Your task to perform on an android device: choose inbox layout in the gmail app Image 0: 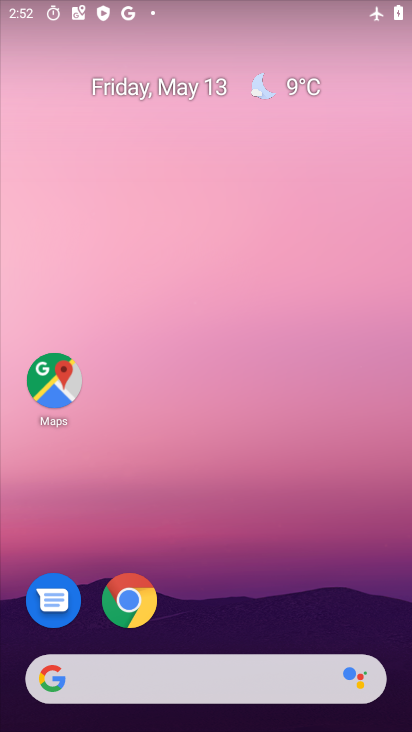
Step 0: drag from (194, 625) to (314, 212)
Your task to perform on an android device: choose inbox layout in the gmail app Image 1: 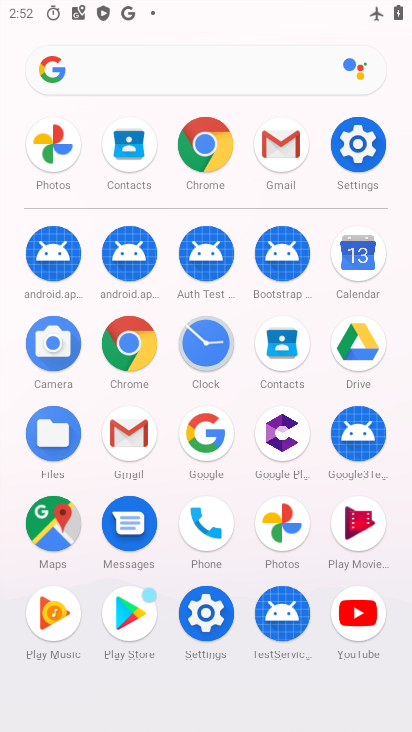
Step 1: click (124, 435)
Your task to perform on an android device: choose inbox layout in the gmail app Image 2: 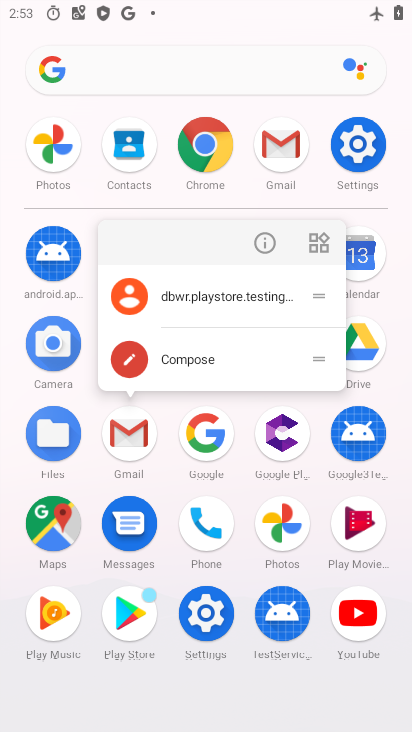
Step 2: click (189, 291)
Your task to perform on an android device: choose inbox layout in the gmail app Image 3: 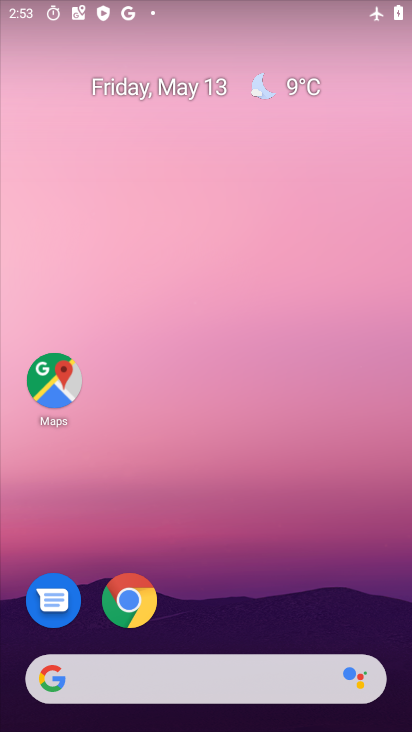
Step 3: drag from (199, 619) to (307, 248)
Your task to perform on an android device: choose inbox layout in the gmail app Image 4: 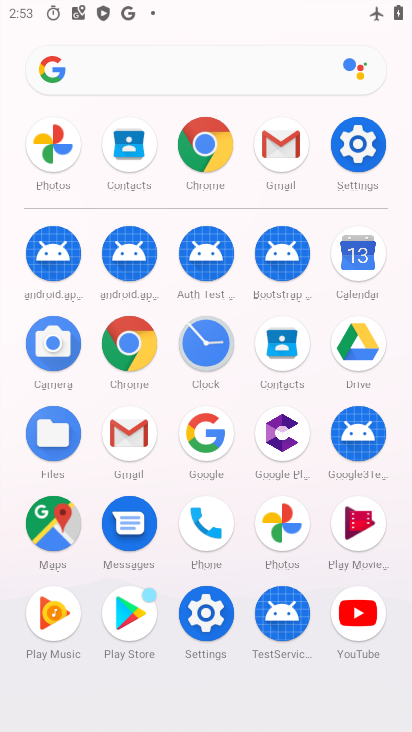
Step 4: click (131, 424)
Your task to perform on an android device: choose inbox layout in the gmail app Image 5: 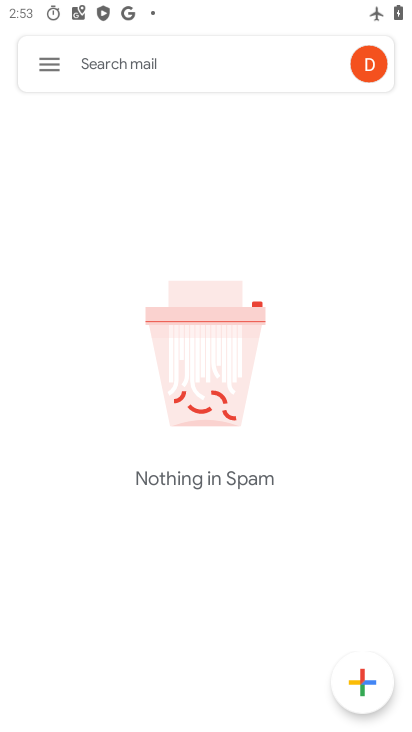
Step 5: click (58, 73)
Your task to perform on an android device: choose inbox layout in the gmail app Image 6: 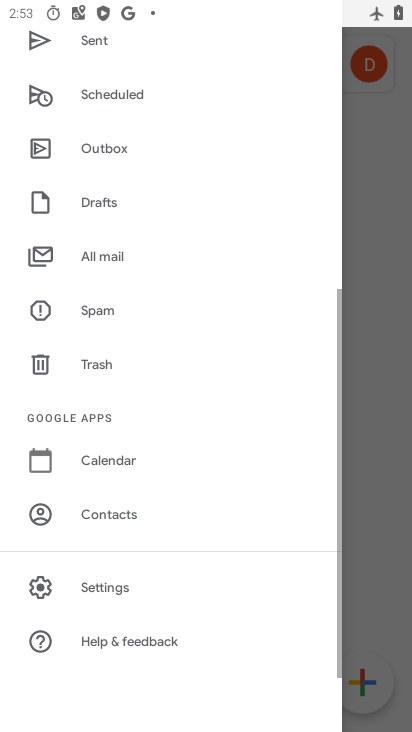
Step 6: drag from (128, 115) to (169, 726)
Your task to perform on an android device: choose inbox layout in the gmail app Image 7: 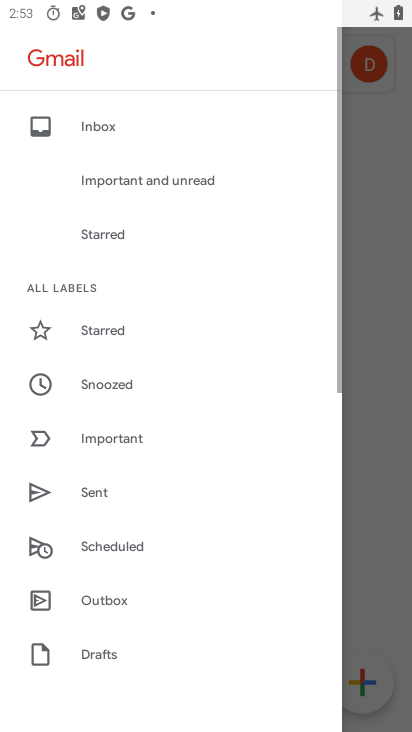
Step 7: click (130, 135)
Your task to perform on an android device: choose inbox layout in the gmail app Image 8: 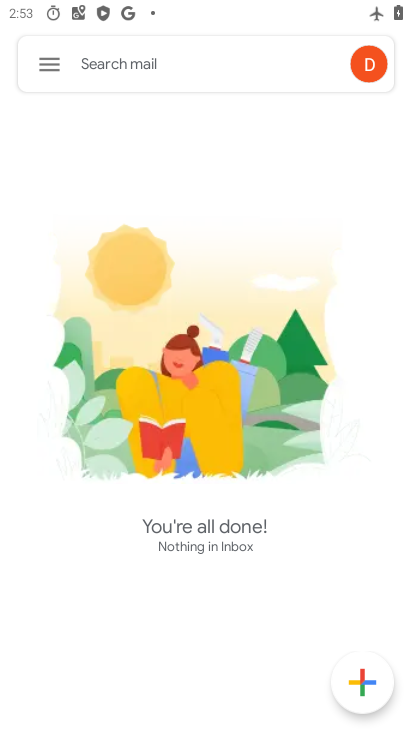
Step 8: drag from (168, 285) to (211, 653)
Your task to perform on an android device: choose inbox layout in the gmail app Image 9: 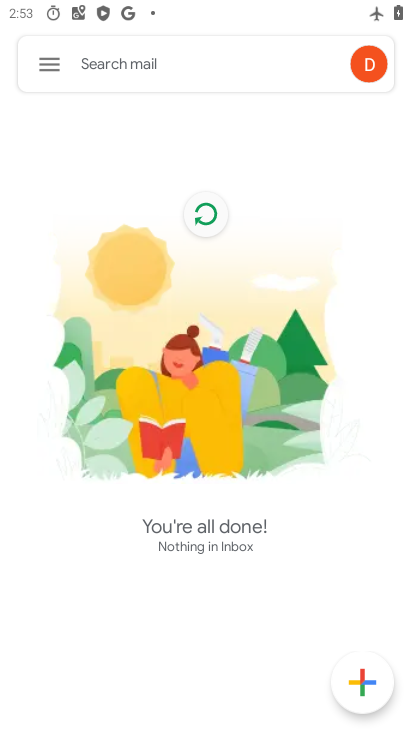
Step 9: drag from (200, 629) to (257, 238)
Your task to perform on an android device: choose inbox layout in the gmail app Image 10: 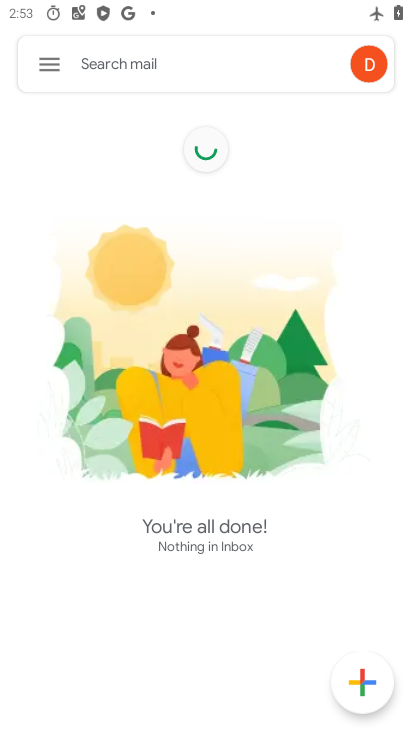
Step 10: click (259, 217)
Your task to perform on an android device: choose inbox layout in the gmail app Image 11: 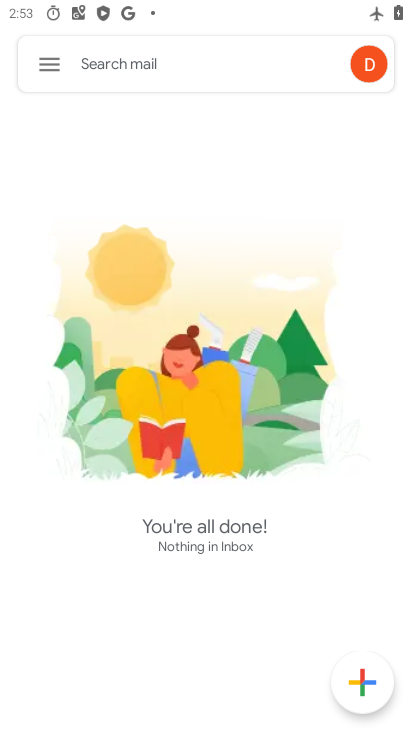
Step 11: click (259, 217)
Your task to perform on an android device: choose inbox layout in the gmail app Image 12: 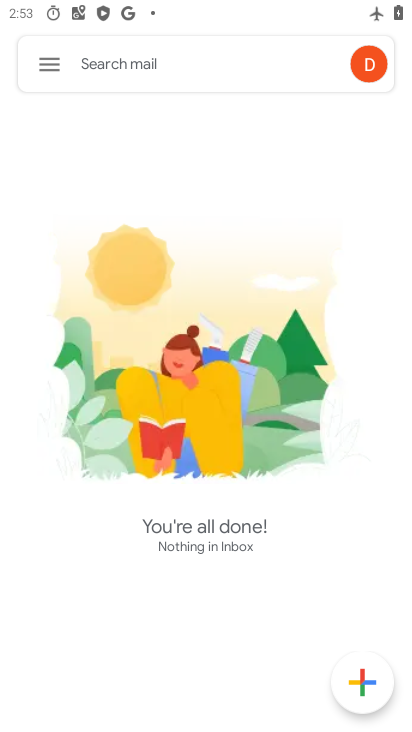
Step 12: task complete